Your task to perform on an android device: Go to eBay Image 0: 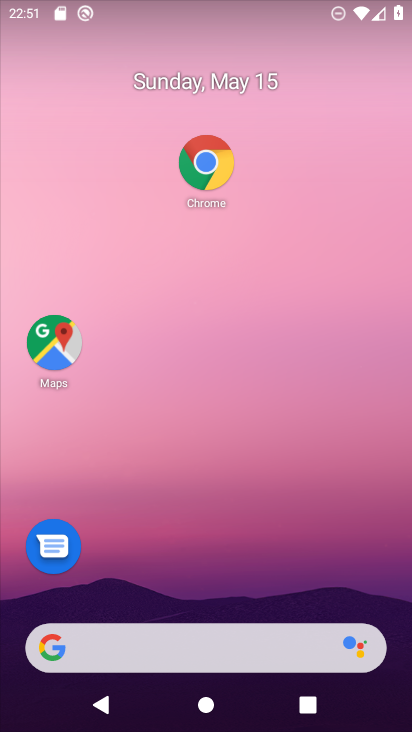
Step 0: click (214, 158)
Your task to perform on an android device: Go to eBay Image 1: 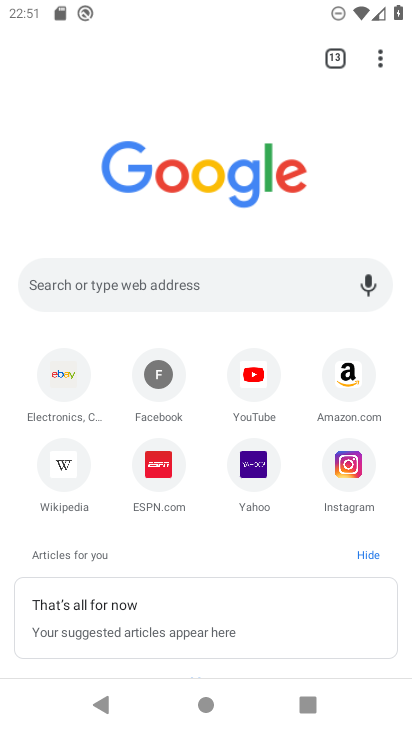
Step 1: click (59, 375)
Your task to perform on an android device: Go to eBay Image 2: 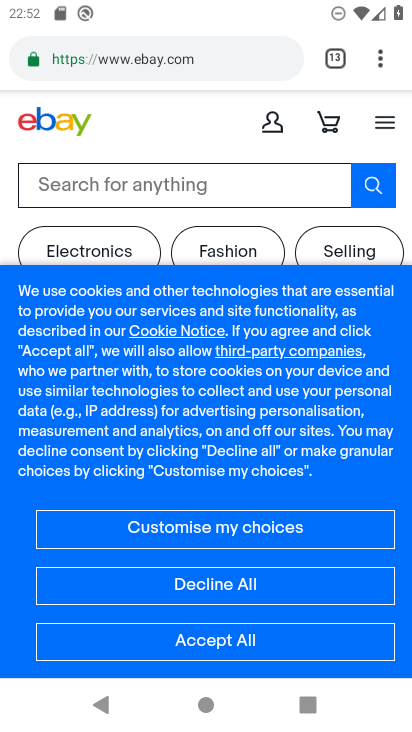
Step 2: task complete